Your task to perform on an android device: turn pop-ups on in chrome Image 0: 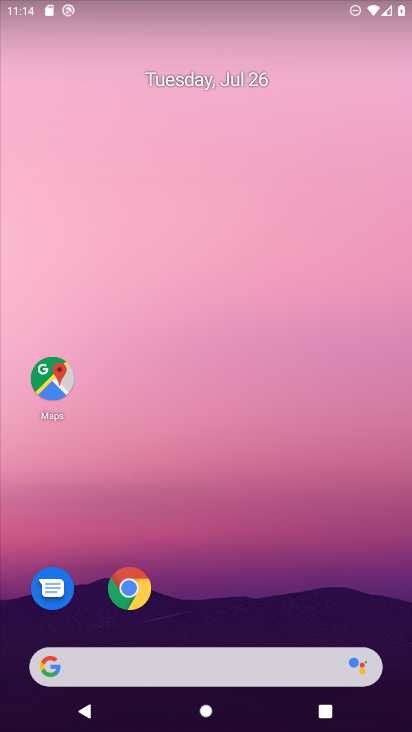
Step 0: drag from (245, 686) to (235, 235)
Your task to perform on an android device: turn pop-ups on in chrome Image 1: 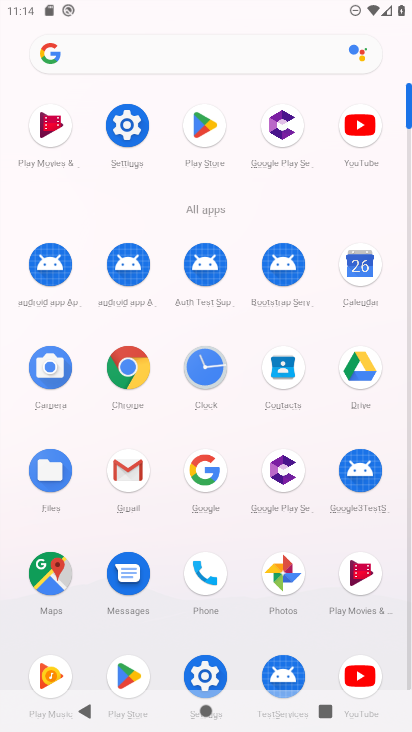
Step 1: click (116, 375)
Your task to perform on an android device: turn pop-ups on in chrome Image 2: 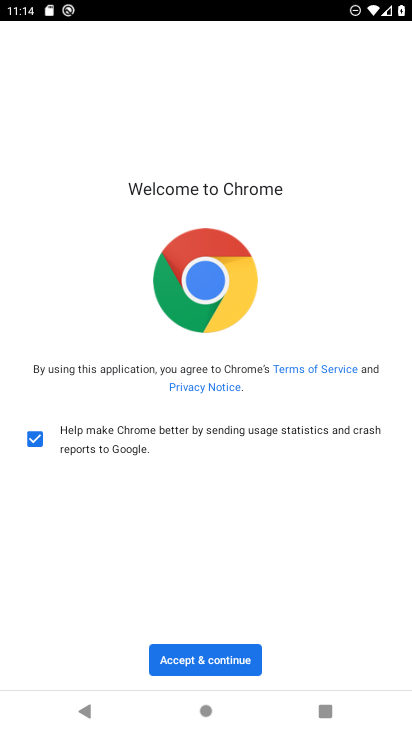
Step 2: click (204, 647)
Your task to perform on an android device: turn pop-ups on in chrome Image 3: 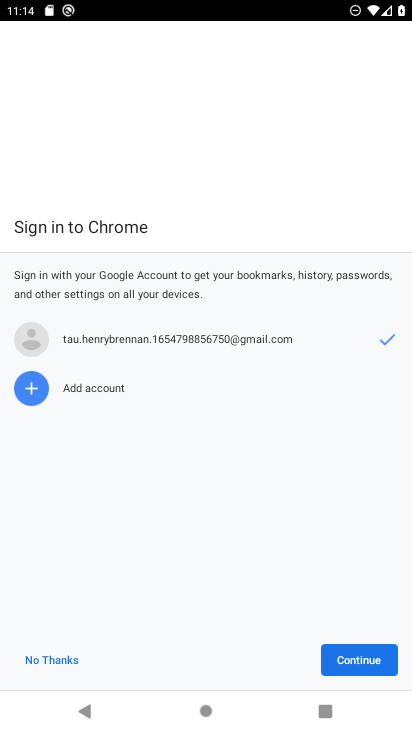
Step 3: click (368, 662)
Your task to perform on an android device: turn pop-ups on in chrome Image 4: 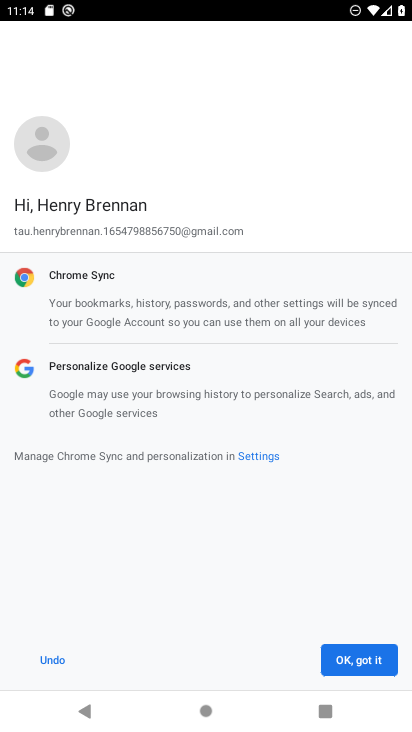
Step 4: click (338, 657)
Your task to perform on an android device: turn pop-ups on in chrome Image 5: 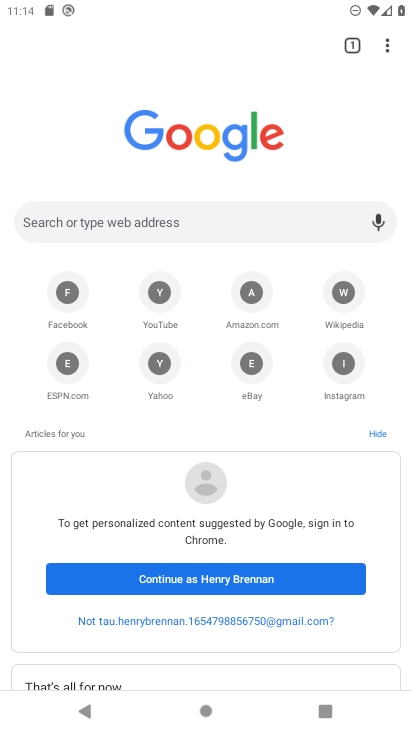
Step 5: click (395, 49)
Your task to perform on an android device: turn pop-ups on in chrome Image 6: 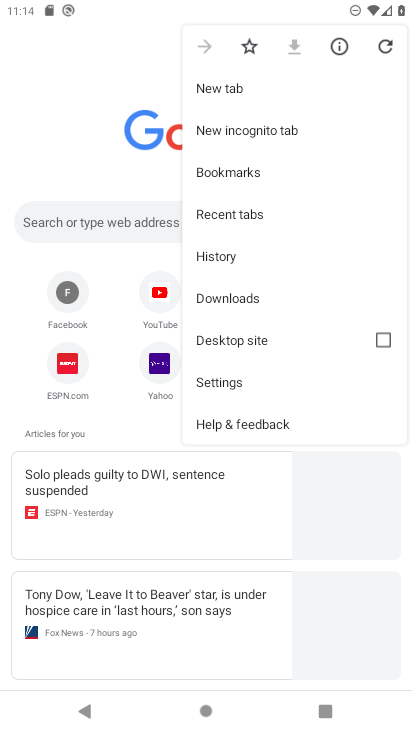
Step 6: click (230, 385)
Your task to perform on an android device: turn pop-ups on in chrome Image 7: 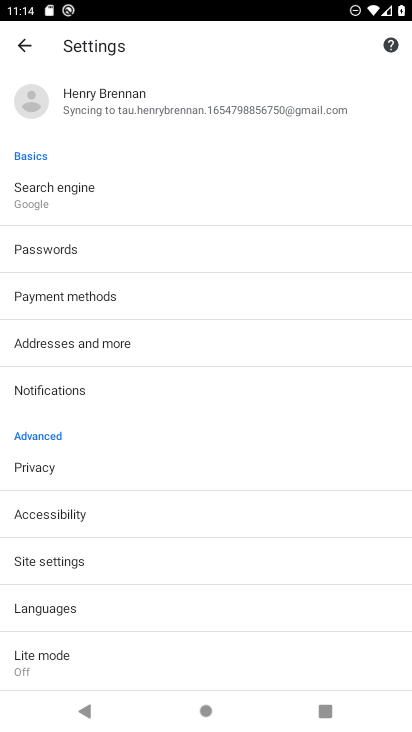
Step 7: click (50, 561)
Your task to perform on an android device: turn pop-ups on in chrome Image 8: 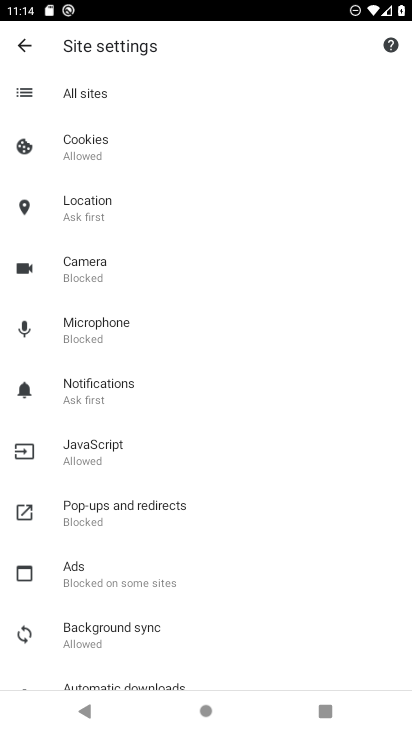
Step 8: click (91, 500)
Your task to perform on an android device: turn pop-ups on in chrome Image 9: 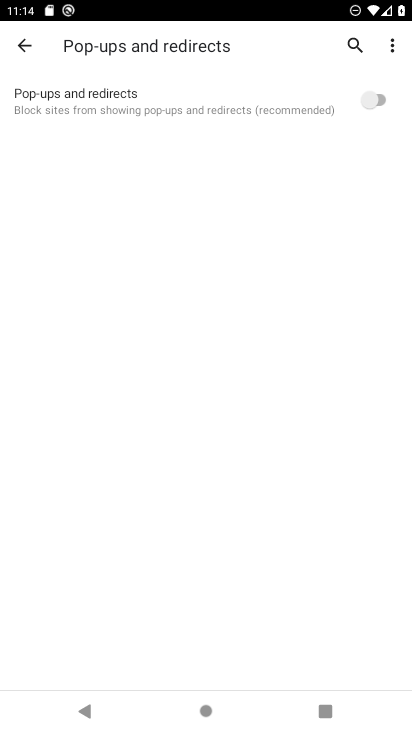
Step 9: click (369, 102)
Your task to perform on an android device: turn pop-ups on in chrome Image 10: 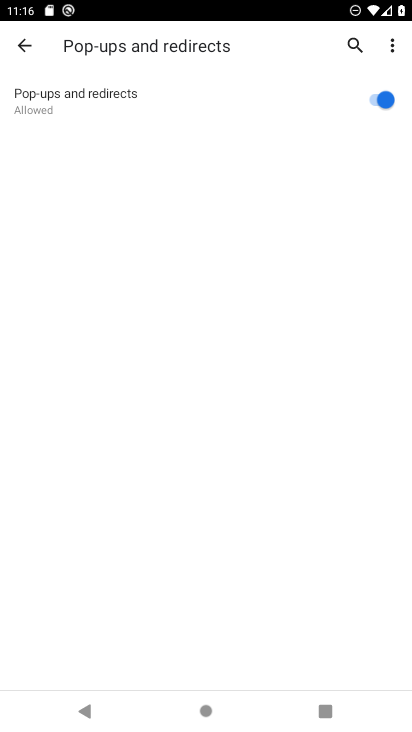
Step 10: task complete